Your task to perform on an android device: open app "WhatsApp Messenger" (install if not already installed) Image 0: 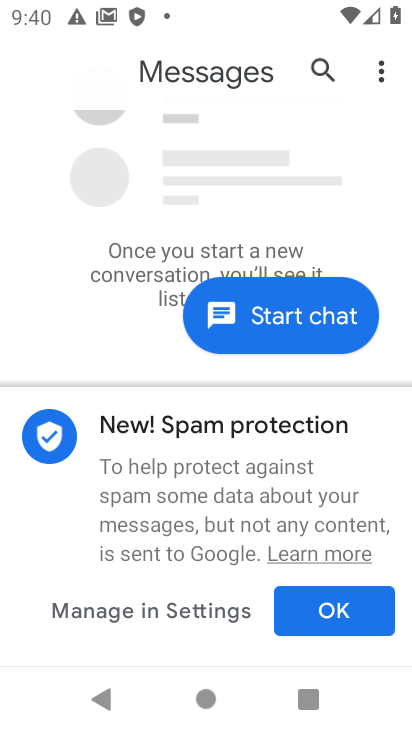
Step 0: press home button
Your task to perform on an android device: open app "WhatsApp Messenger" (install if not already installed) Image 1: 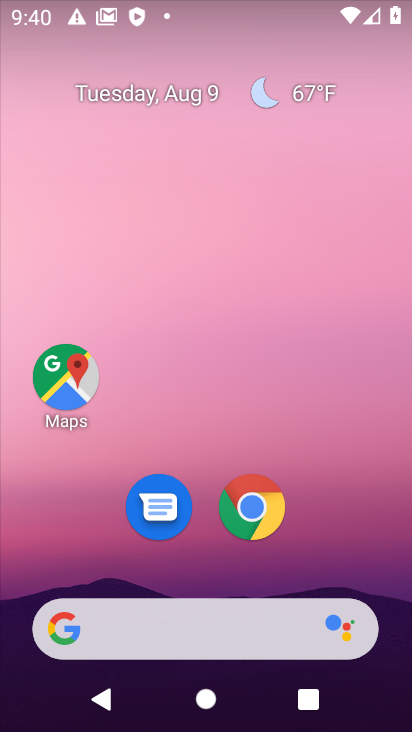
Step 1: drag from (144, 622) to (220, 89)
Your task to perform on an android device: open app "WhatsApp Messenger" (install if not already installed) Image 2: 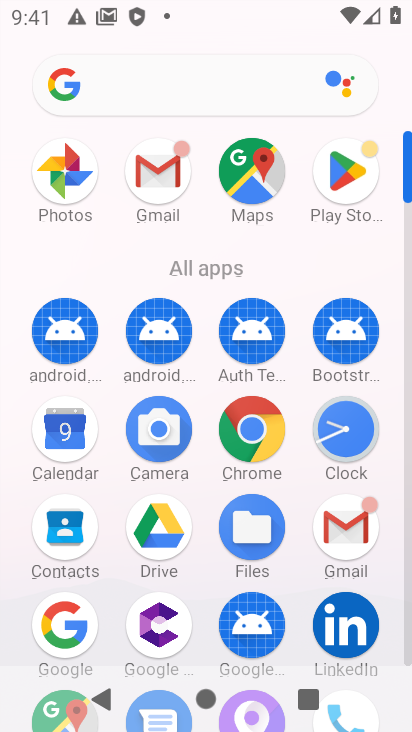
Step 2: click (350, 187)
Your task to perform on an android device: open app "WhatsApp Messenger" (install if not already installed) Image 3: 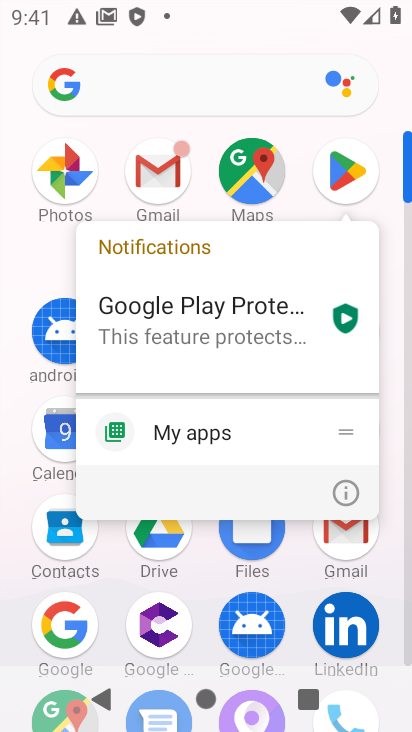
Step 3: click (342, 169)
Your task to perform on an android device: open app "WhatsApp Messenger" (install if not already installed) Image 4: 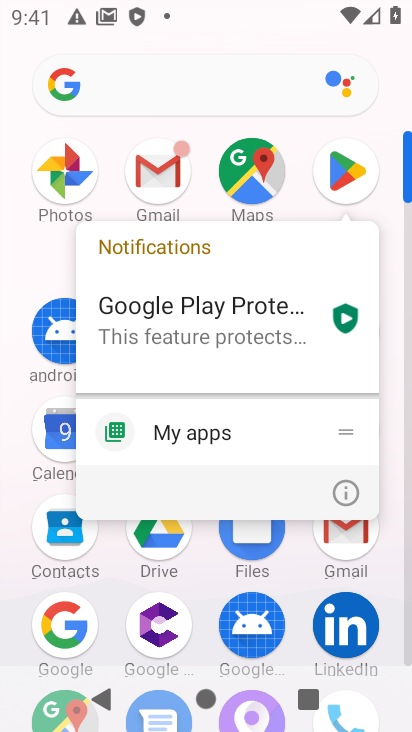
Step 4: click (341, 169)
Your task to perform on an android device: open app "WhatsApp Messenger" (install if not already installed) Image 5: 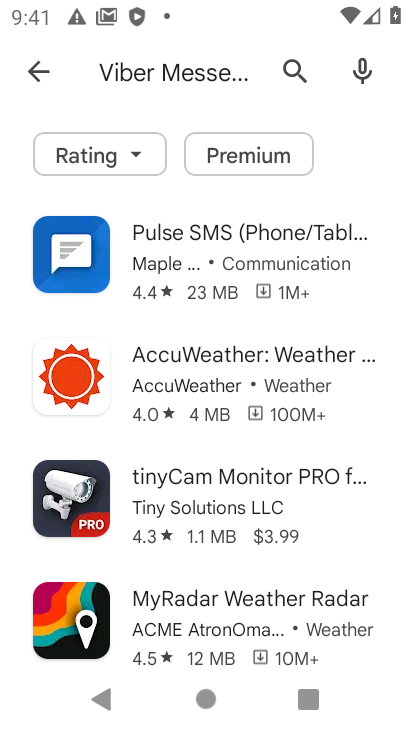
Step 5: click (52, 68)
Your task to perform on an android device: open app "WhatsApp Messenger" (install if not already installed) Image 6: 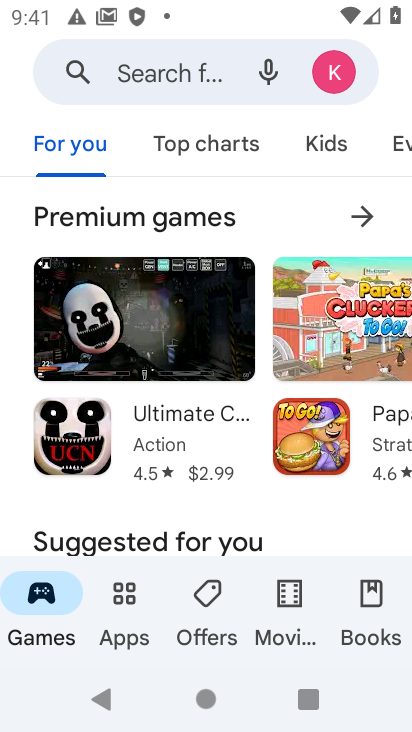
Step 6: click (185, 79)
Your task to perform on an android device: open app "WhatsApp Messenger" (install if not already installed) Image 7: 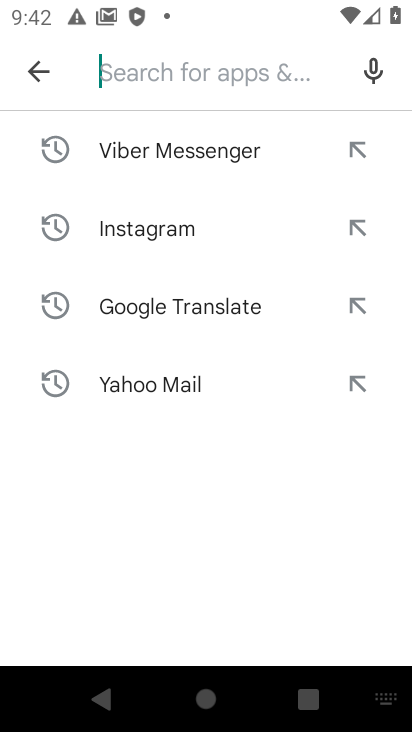
Step 7: type "WhatsApp Messenger"
Your task to perform on an android device: open app "WhatsApp Messenger" (install if not already installed) Image 8: 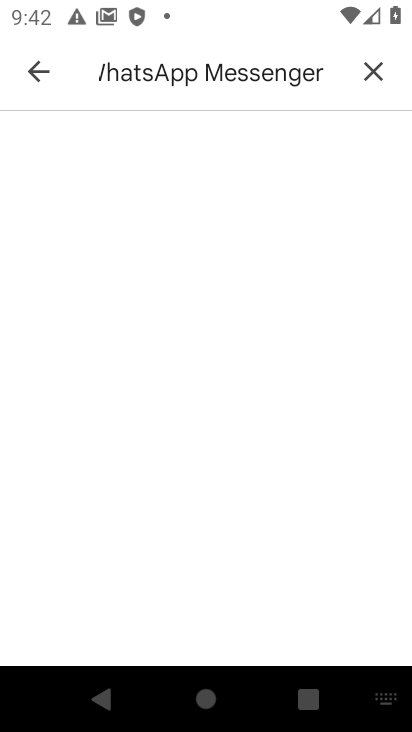
Step 8: press enter
Your task to perform on an android device: open app "WhatsApp Messenger" (install if not already installed) Image 9: 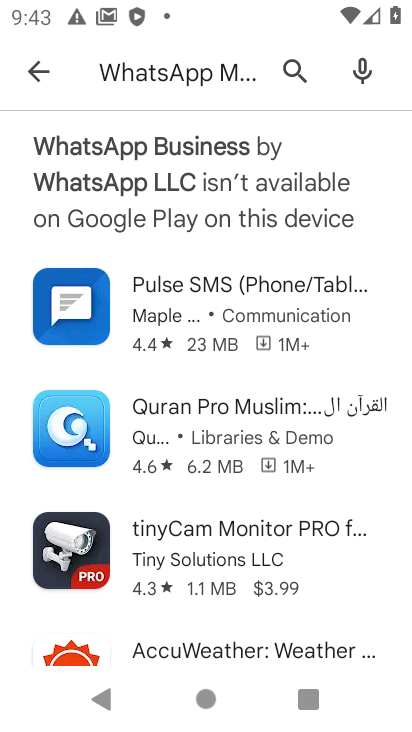
Step 9: task complete